Your task to perform on an android device: Open the calendar and show me this week's events Image 0: 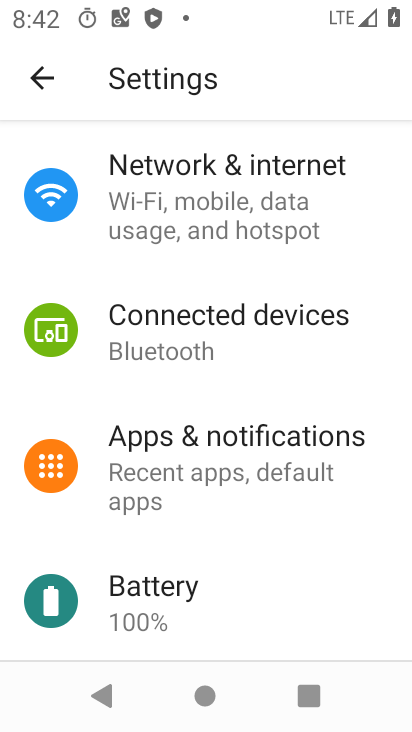
Step 0: press home button
Your task to perform on an android device: Open the calendar and show me this week's events Image 1: 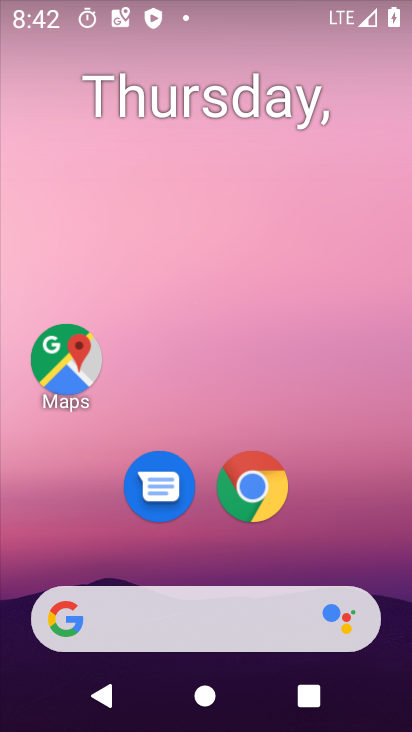
Step 1: drag from (172, 624) to (275, 212)
Your task to perform on an android device: Open the calendar and show me this week's events Image 2: 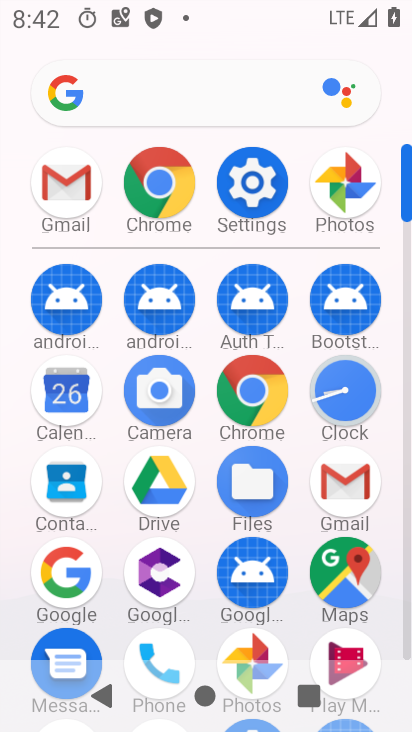
Step 2: click (91, 405)
Your task to perform on an android device: Open the calendar and show me this week's events Image 3: 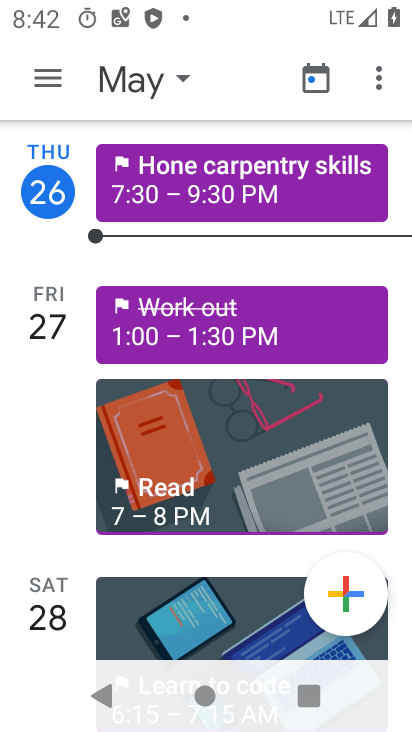
Step 3: click (172, 94)
Your task to perform on an android device: Open the calendar and show me this week's events Image 4: 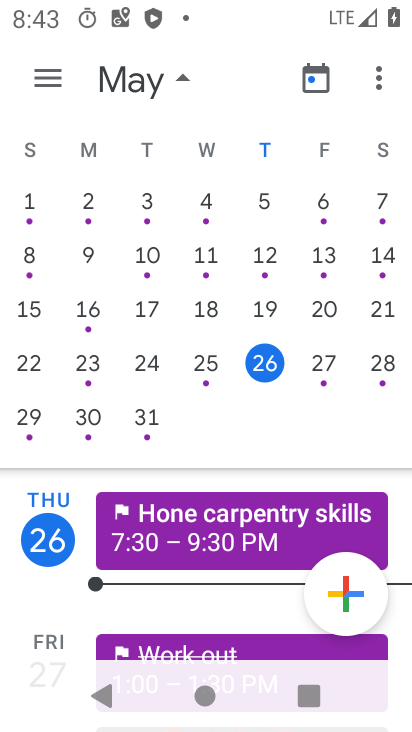
Step 4: click (316, 371)
Your task to perform on an android device: Open the calendar and show me this week's events Image 5: 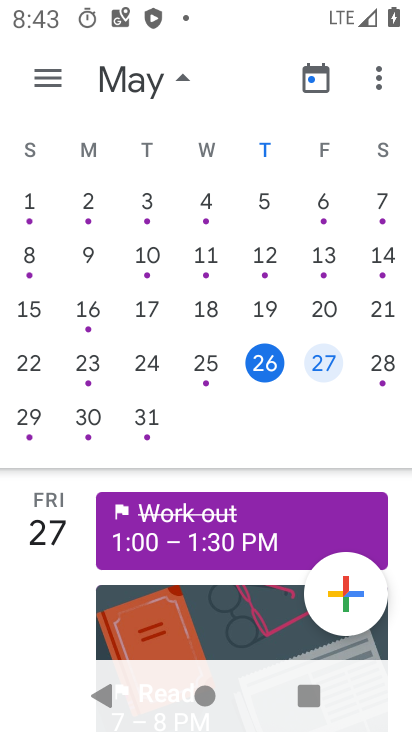
Step 5: task complete